Your task to perform on an android device: Go to display settings Image 0: 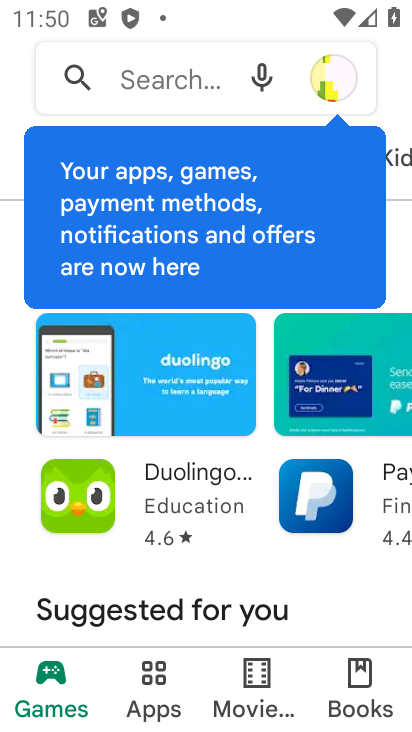
Step 0: press home button
Your task to perform on an android device: Go to display settings Image 1: 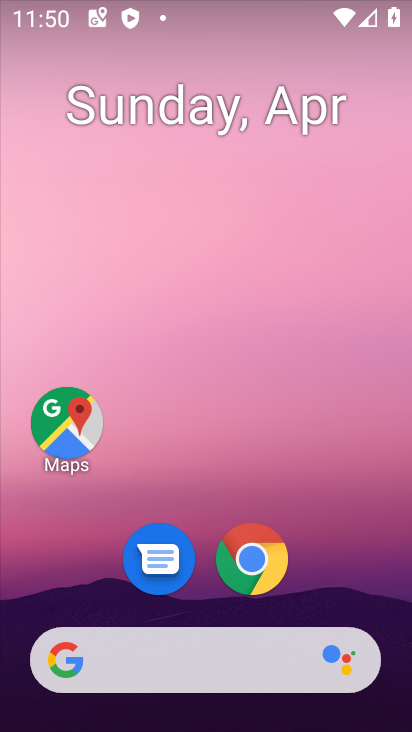
Step 1: drag from (351, 556) to (305, 133)
Your task to perform on an android device: Go to display settings Image 2: 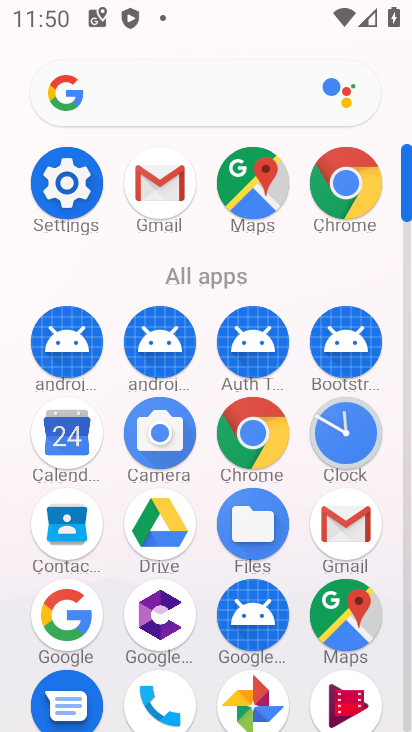
Step 2: click (58, 185)
Your task to perform on an android device: Go to display settings Image 3: 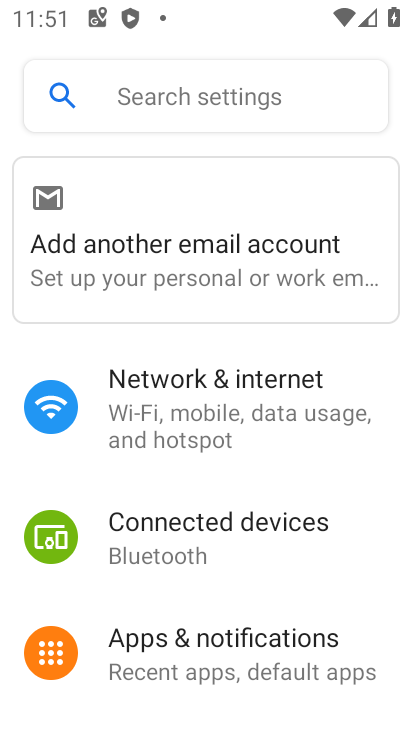
Step 3: drag from (145, 677) to (130, 476)
Your task to perform on an android device: Go to display settings Image 4: 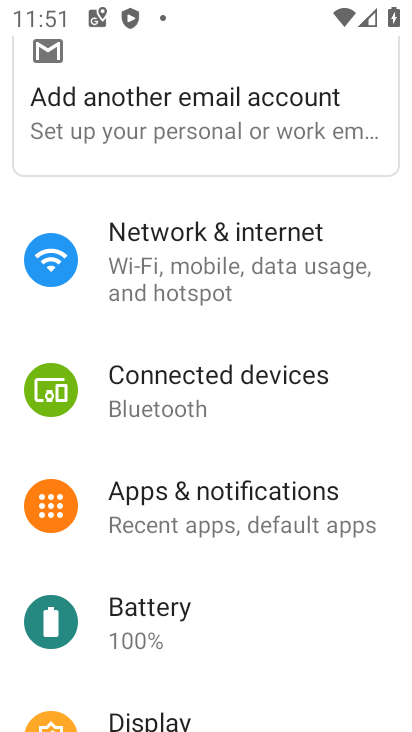
Step 4: click (194, 634)
Your task to perform on an android device: Go to display settings Image 5: 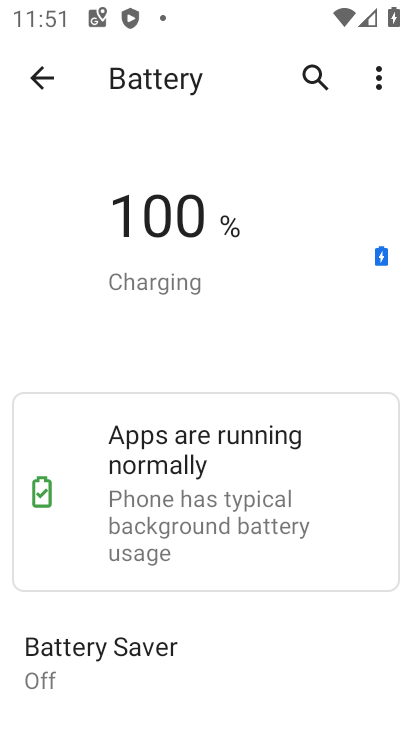
Step 5: task complete